Your task to perform on an android device: toggle sleep mode Image 0: 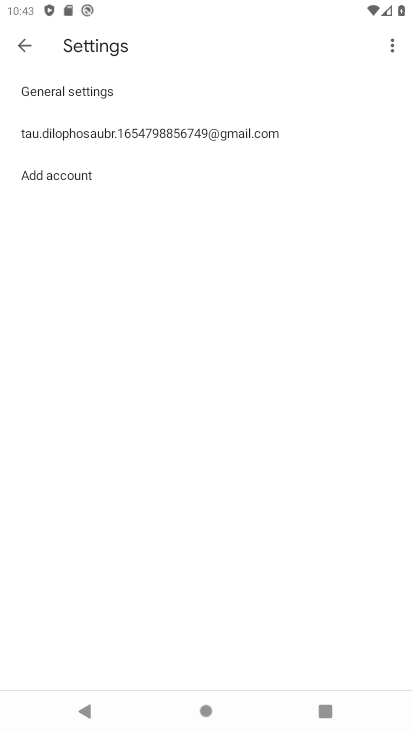
Step 0: press home button
Your task to perform on an android device: toggle sleep mode Image 1: 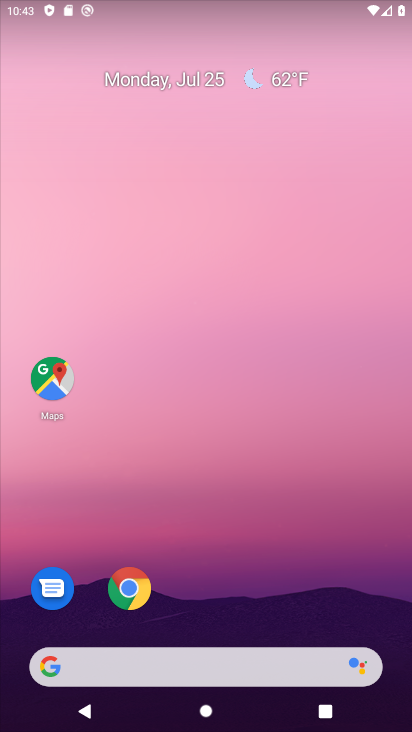
Step 1: drag from (75, 540) to (252, 57)
Your task to perform on an android device: toggle sleep mode Image 2: 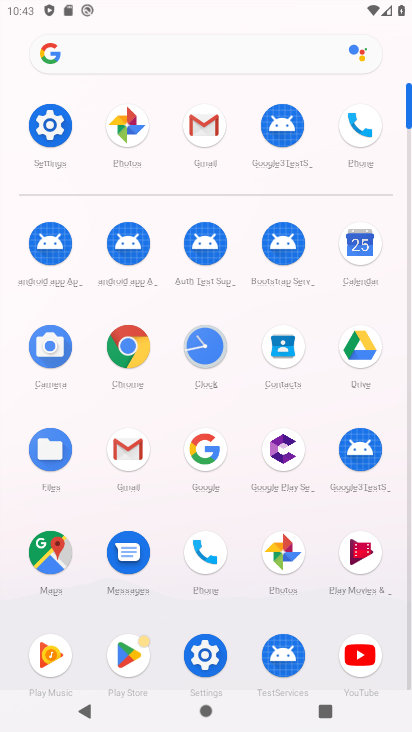
Step 2: click (31, 115)
Your task to perform on an android device: toggle sleep mode Image 3: 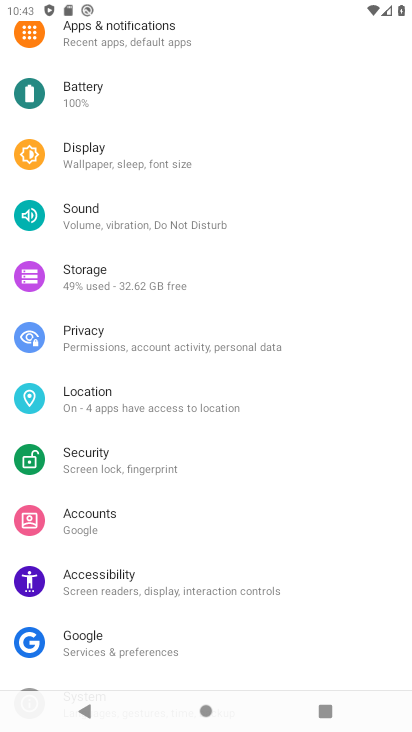
Step 3: click (150, 161)
Your task to perform on an android device: toggle sleep mode Image 4: 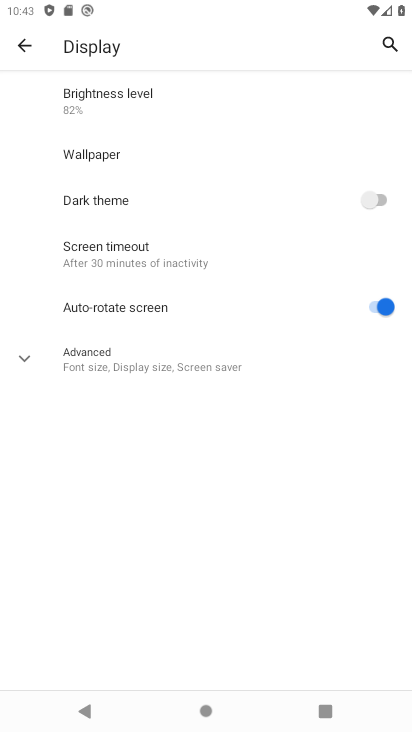
Step 4: task complete